Your task to perform on an android device: Open accessibility settings Image 0: 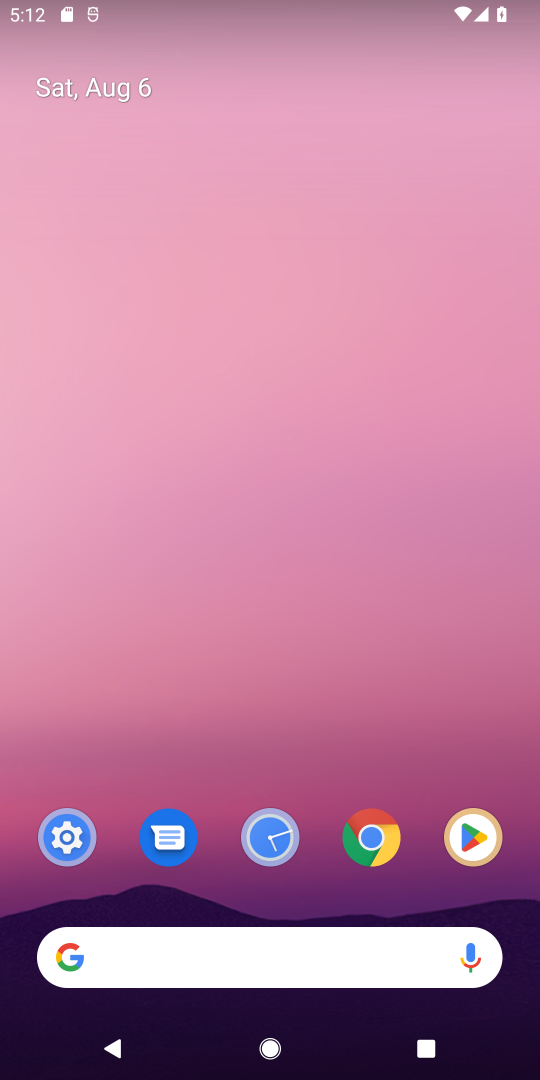
Step 0: click (64, 838)
Your task to perform on an android device: Open accessibility settings Image 1: 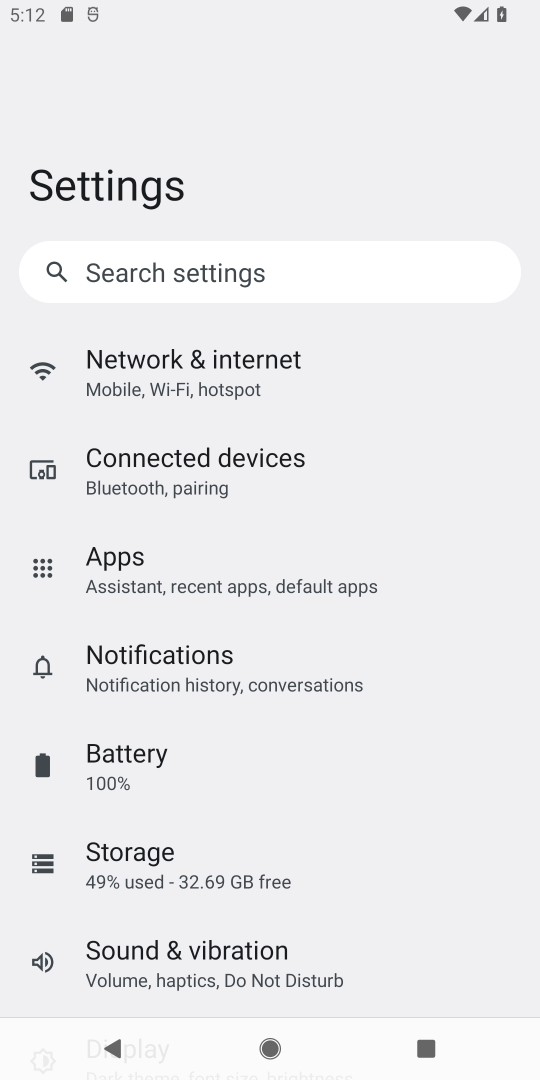
Step 1: drag from (265, 920) to (361, 440)
Your task to perform on an android device: Open accessibility settings Image 2: 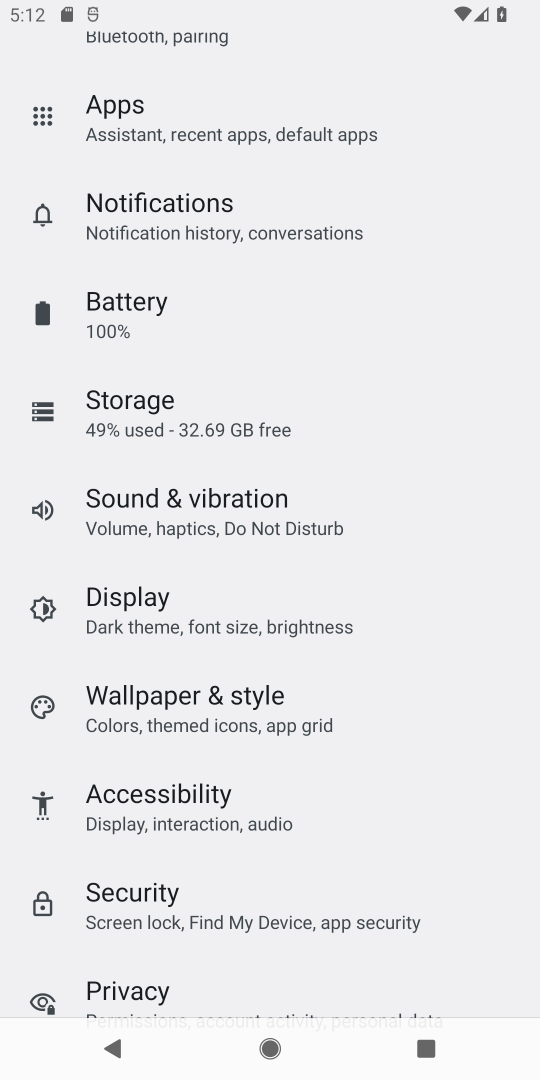
Step 2: click (177, 798)
Your task to perform on an android device: Open accessibility settings Image 3: 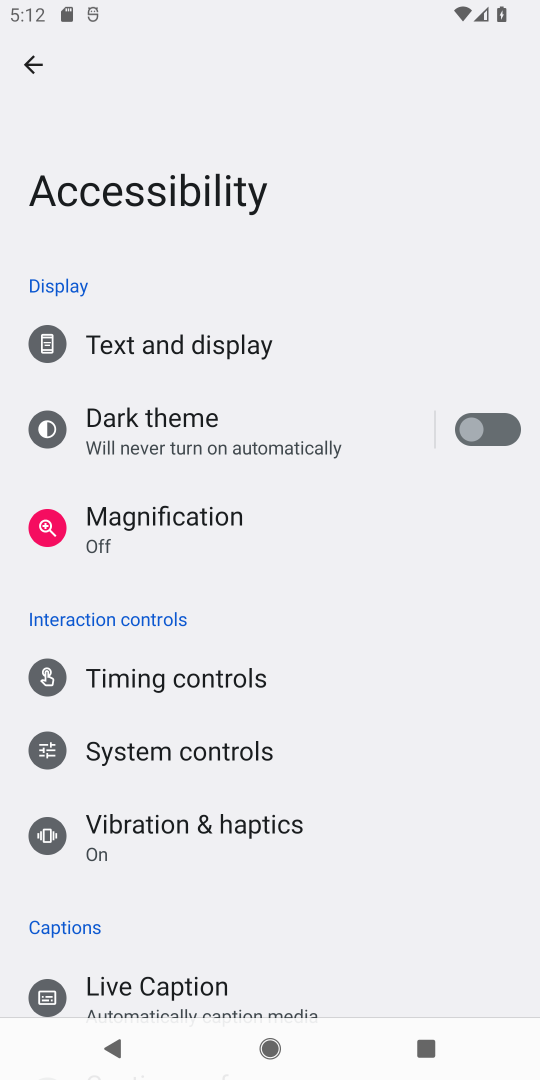
Step 3: task complete